Your task to perform on an android device: Open location settings Image 0: 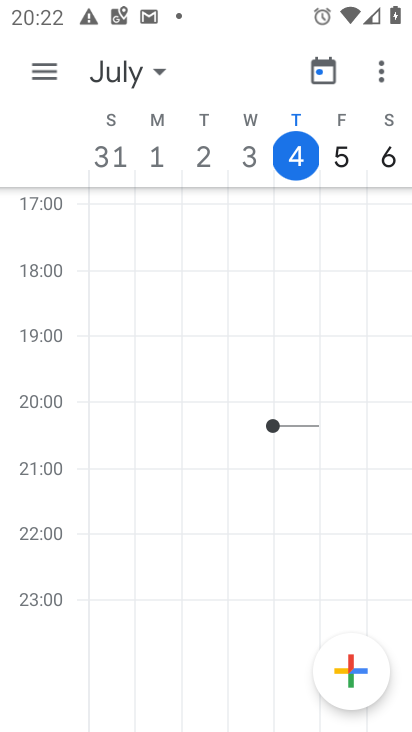
Step 0: press home button
Your task to perform on an android device: Open location settings Image 1: 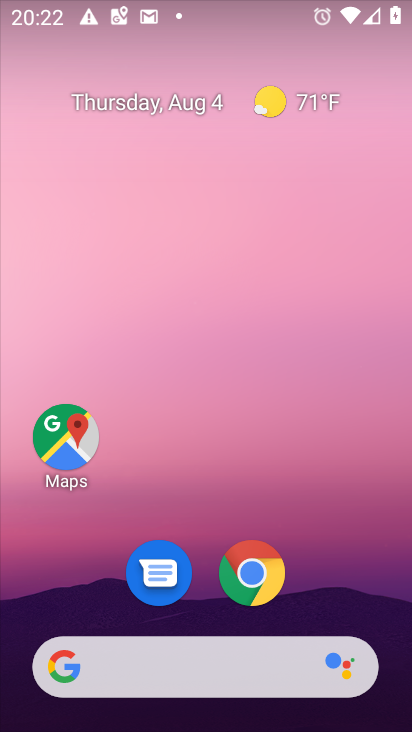
Step 1: drag from (223, 656) to (208, 36)
Your task to perform on an android device: Open location settings Image 2: 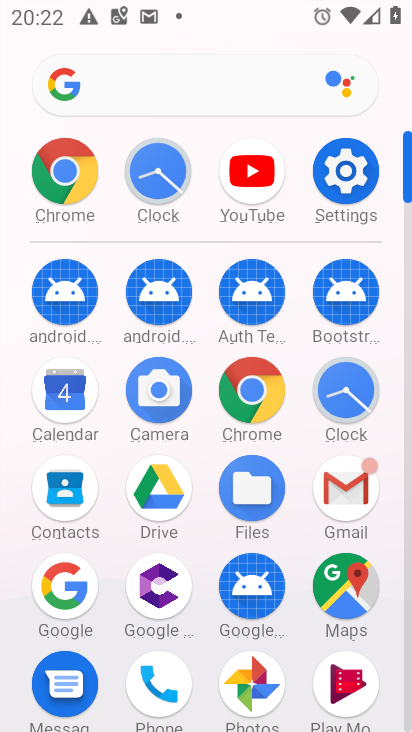
Step 2: click (334, 180)
Your task to perform on an android device: Open location settings Image 3: 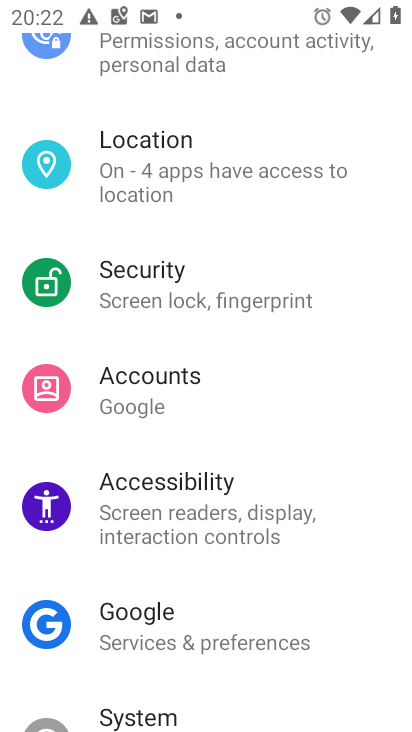
Step 3: click (183, 173)
Your task to perform on an android device: Open location settings Image 4: 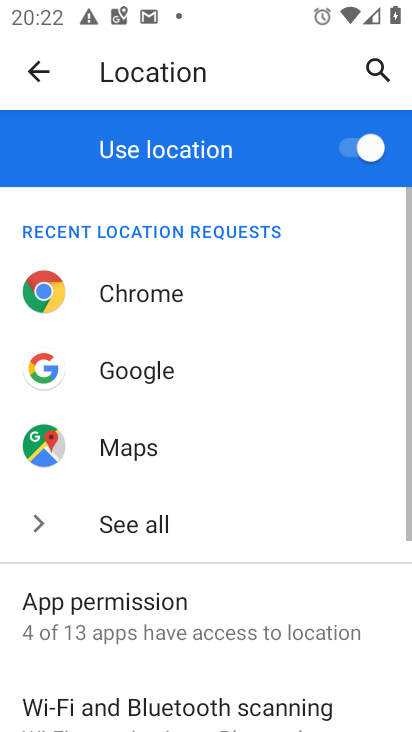
Step 4: drag from (168, 639) to (136, 294)
Your task to perform on an android device: Open location settings Image 5: 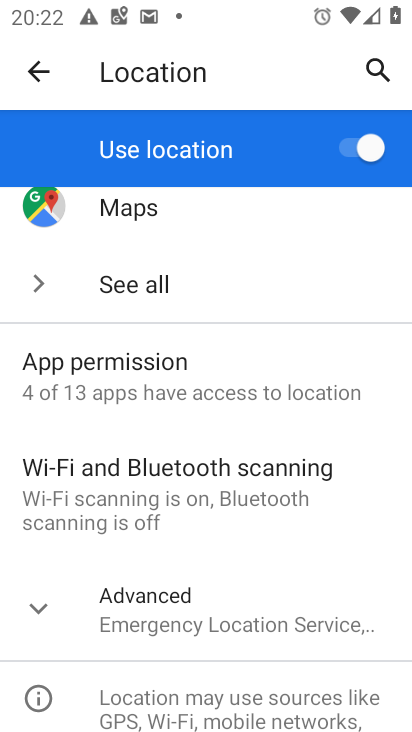
Step 5: click (140, 605)
Your task to perform on an android device: Open location settings Image 6: 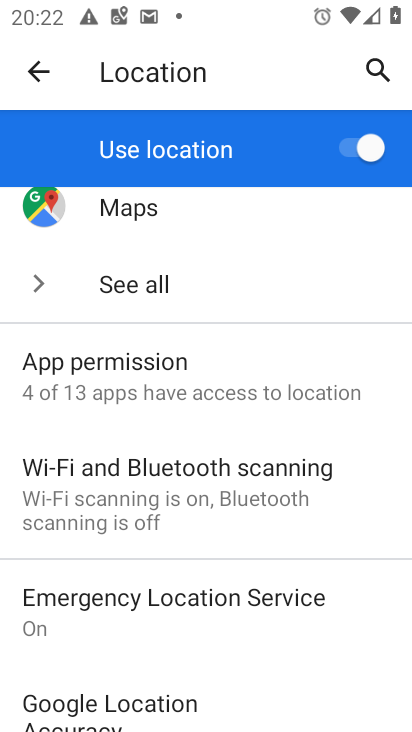
Step 6: task complete